Your task to perform on an android device: Go to Yahoo.com Image 0: 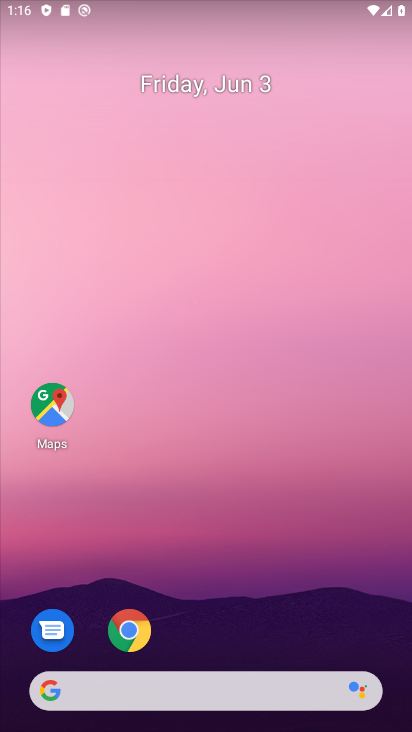
Step 0: click (129, 626)
Your task to perform on an android device: Go to Yahoo.com Image 1: 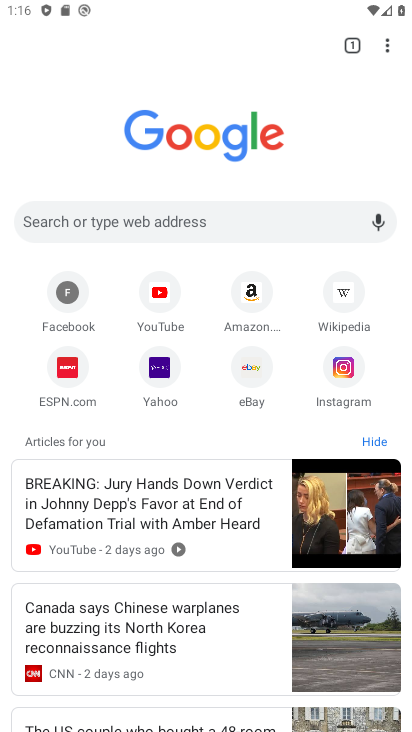
Step 1: click (164, 366)
Your task to perform on an android device: Go to Yahoo.com Image 2: 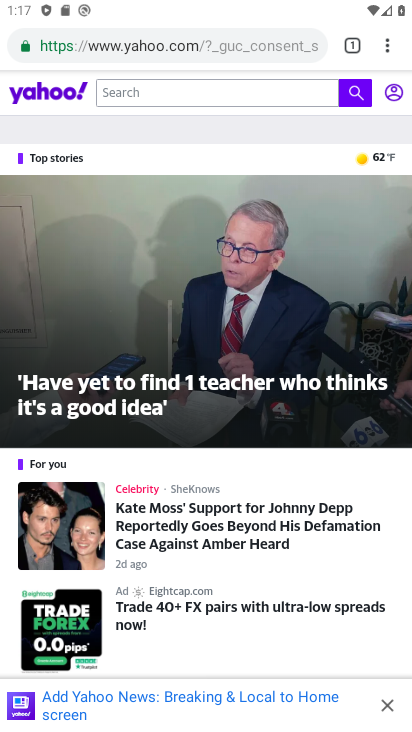
Step 2: task complete